Your task to perform on an android device: Go to notification settings Image 0: 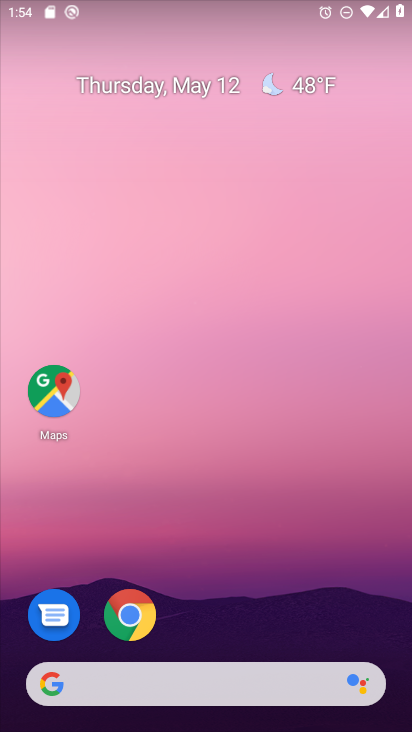
Step 0: drag from (270, 655) to (357, 10)
Your task to perform on an android device: Go to notification settings Image 1: 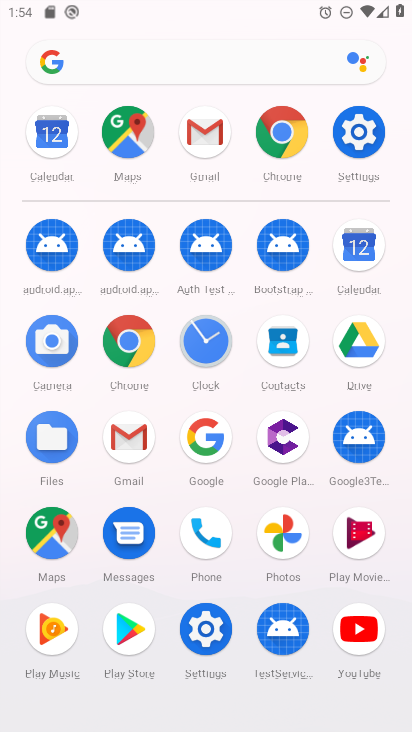
Step 1: click (357, 138)
Your task to perform on an android device: Go to notification settings Image 2: 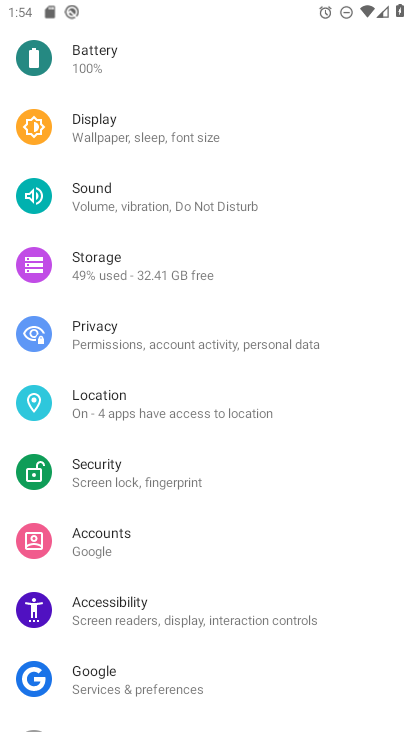
Step 2: drag from (202, 281) to (249, 724)
Your task to perform on an android device: Go to notification settings Image 3: 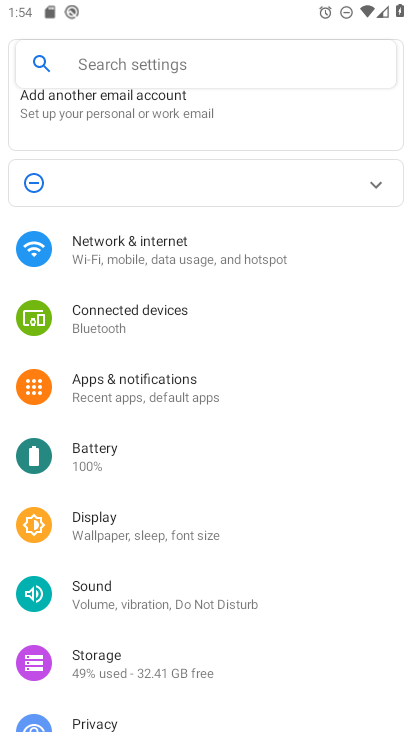
Step 3: click (181, 384)
Your task to perform on an android device: Go to notification settings Image 4: 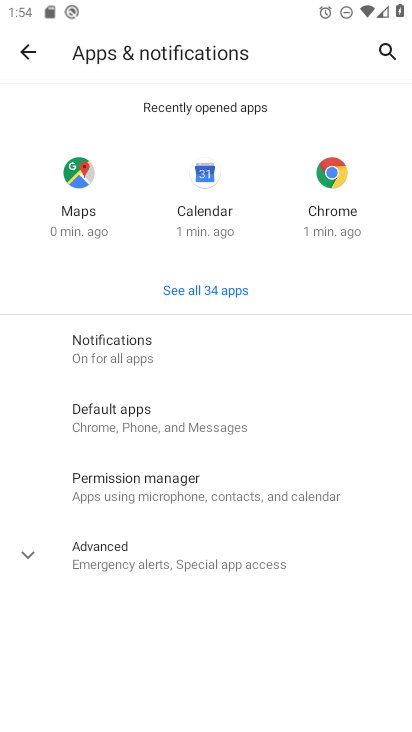
Step 4: task complete